Your task to perform on an android device: allow cookies in the chrome app Image 0: 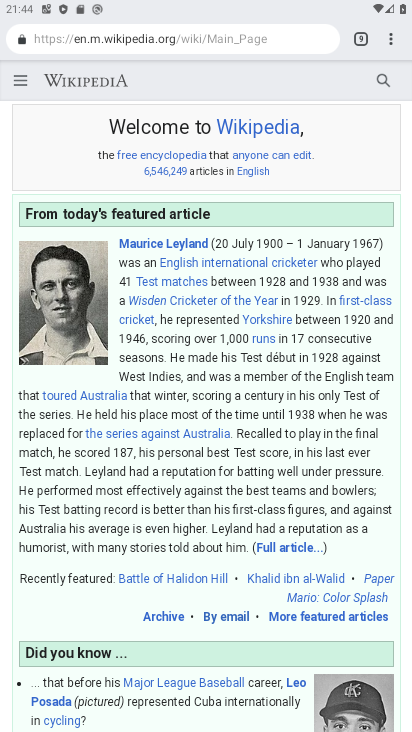
Step 0: click (391, 41)
Your task to perform on an android device: allow cookies in the chrome app Image 1: 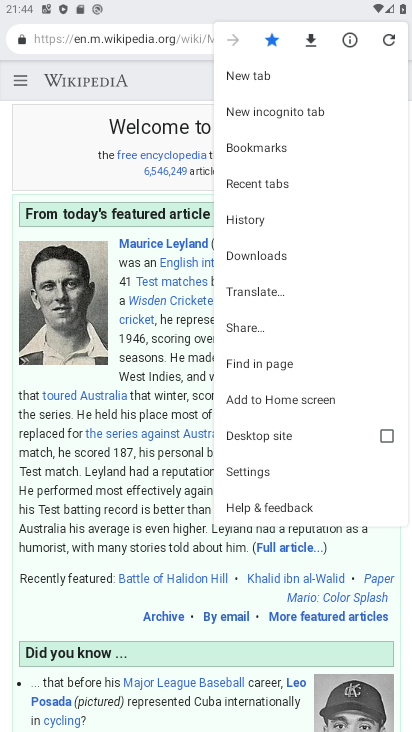
Step 1: click (252, 470)
Your task to perform on an android device: allow cookies in the chrome app Image 2: 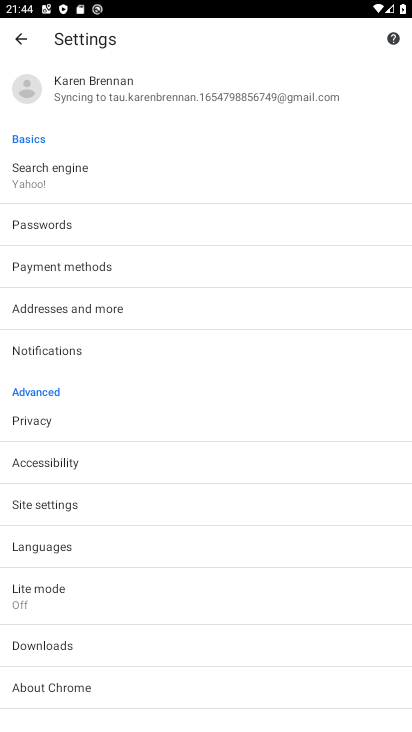
Step 2: click (36, 500)
Your task to perform on an android device: allow cookies in the chrome app Image 3: 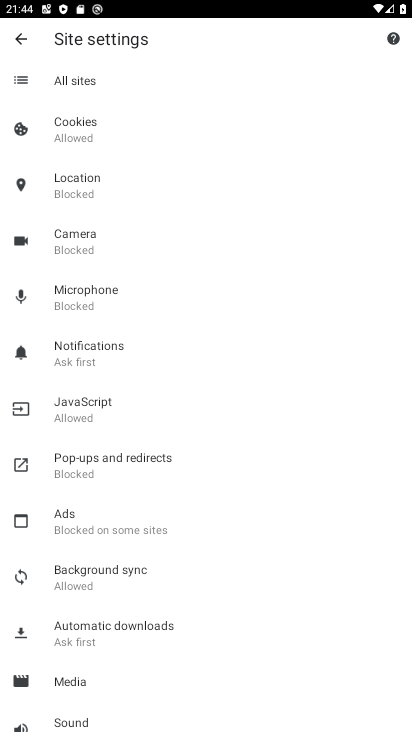
Step 3: click (81, 134)
Your task to perform on an android device: allow cookies in the chrome app Image 4: 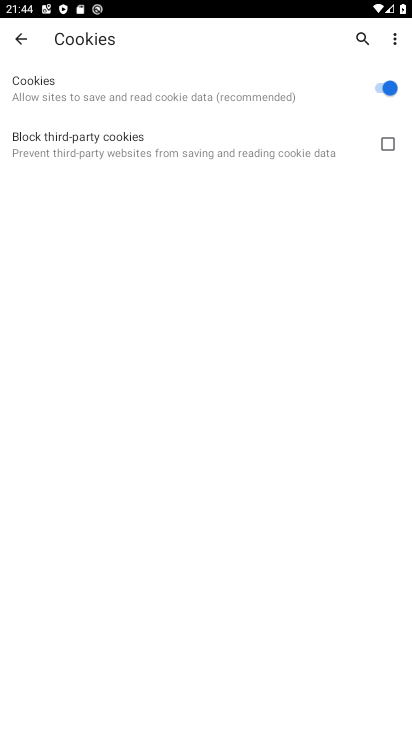
Step 4: task complete